Your task to perform on an android device: Toggle the flashlight Image 0: 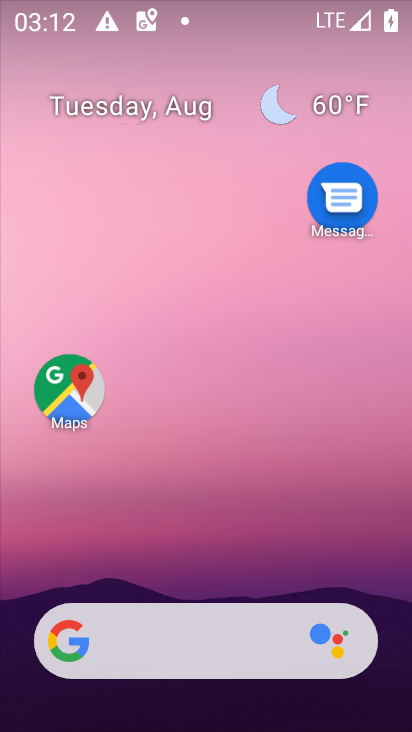
Step 0: drag from (224, 601) to (280, 8)
Your task to perform on an android device: Toggle the flashlight Image 1: 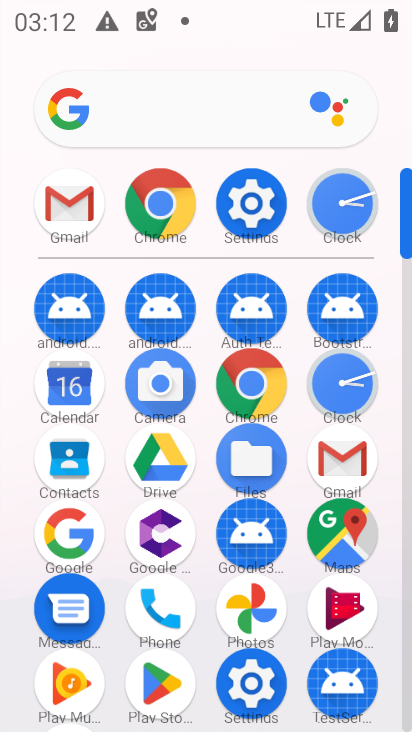
Step 1: click (241, 236)
Your task to perform on an android device: Toggle the flashlight Image 2: 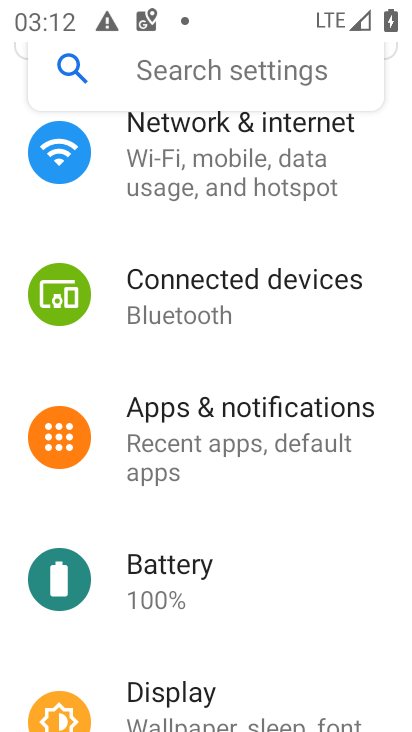
Step 2: task complete